Your task to perform on an android device: turn off sleep mode Image 0: 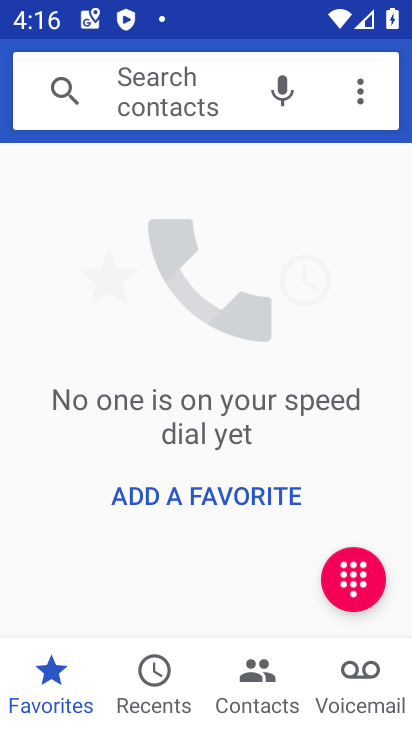
Step 0: press home button
Your task to perform on an android device: turn off sleep mode Image 1: 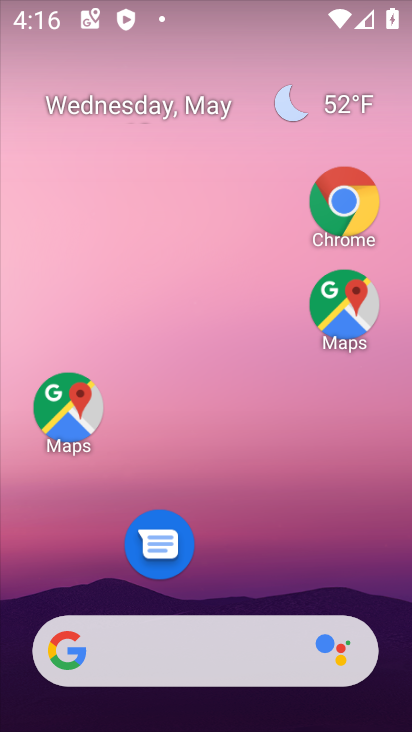
Step 1: drag from (204, 566) to (176, 53)
Your task to perform on an android device: turn off sleep mode Image 2: 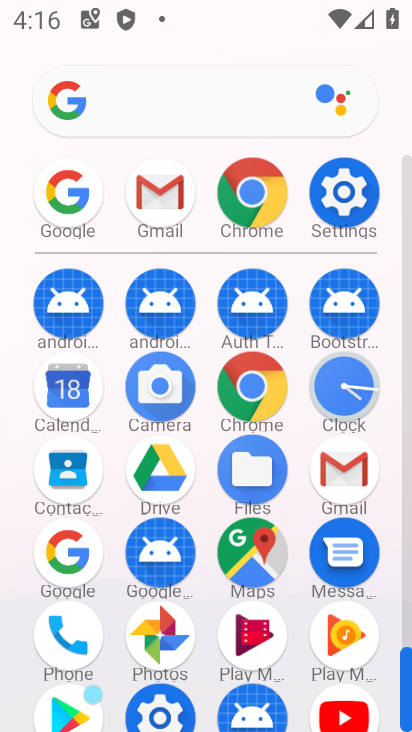
Step 2: click (348, 191)
Your task to perform on an android device: turn off sleep mode Image 3: 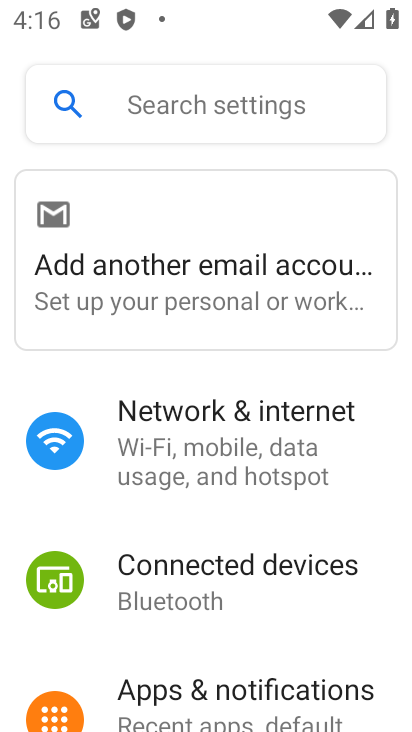
Step 3: task complete